Your task to perform on an android device: open app "Yahoo Mail" Image 0: 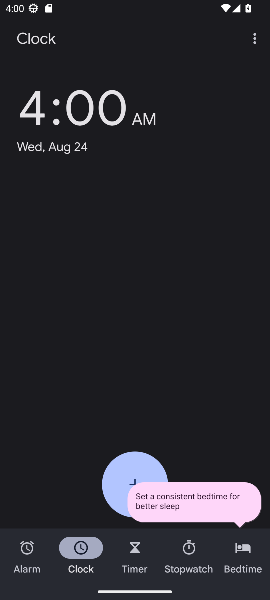
Step 0: press home button
Your task to perform on an android device: open app "Yahoo Mail" Image 1: 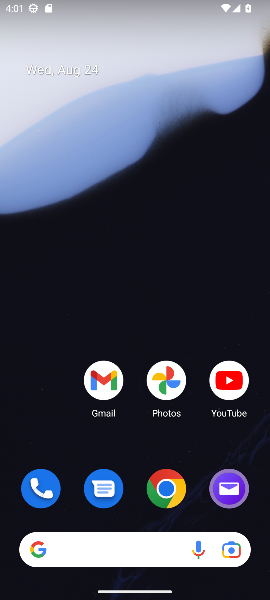
Step 1: drag from (131, 522) to (171, 106)
Your task to perform on an android device: open app "Yahoo Mail" Image 2: 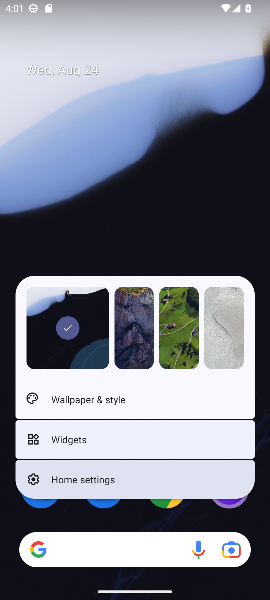
Step 2: click (171, 106)
Your task to perform on an android device: open app "Yahoo Mail" Image 3: 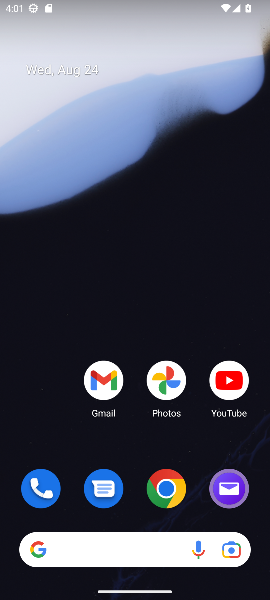
Step 3: drag from (133, 522) to (150, 53)
Your task to perform on an android device: open app "Yahoo Mail" Image 4: 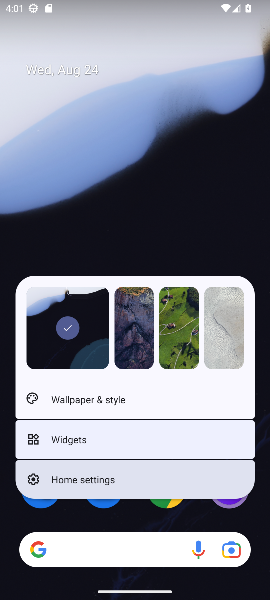
Step 4: click (132, 119)
Your task to perform on an android device: open app "Yahoo Mail" Image 5: 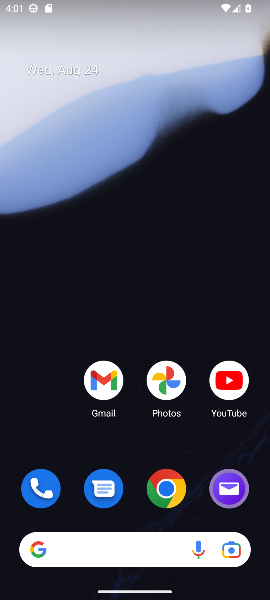
Step 5: drag from (135, 520) to (140, 182)
Your task to perform on an android device: open app "Yahoo Mail" Image 6: 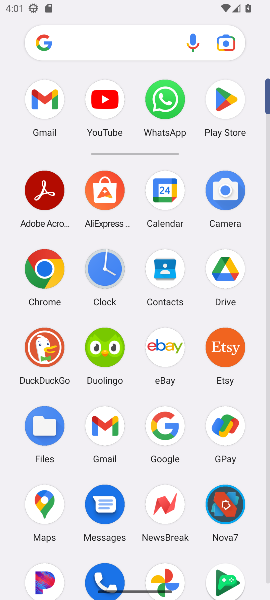
Step 6: click (215, 125)
Your task to perform on an android device: open app "Yahoo Mail" Image 7: 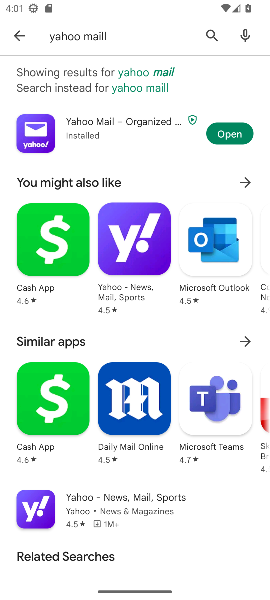
Step 7: click (214, 32)
Your task to perform on an android device: open app "Yahoo Mail" Image 8: 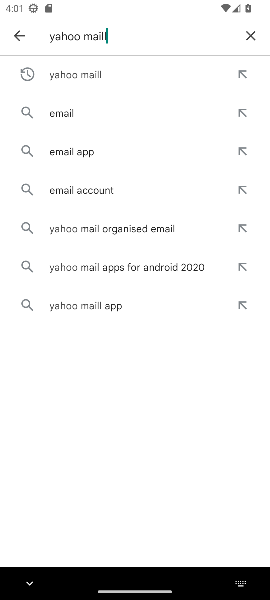
Step 8: click (254, 32)
Your task to perform on an android device: open app "Yahoo Mail" Image 9: 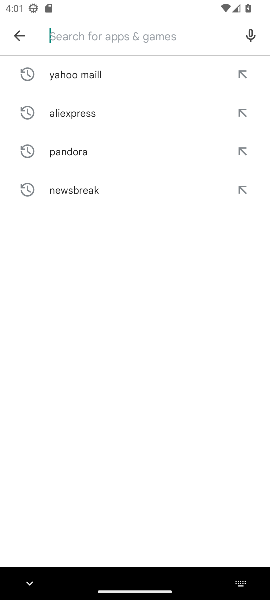
Step 9: type "yahoo mail"
Your task to perform on an android device: open app "Yahoo Mail" Image 10: 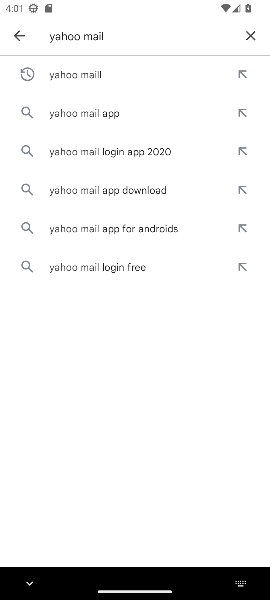
Step 10: click (113, 83)
Your task to perform on an android device: open app "Yahoo Mail" Image 11: 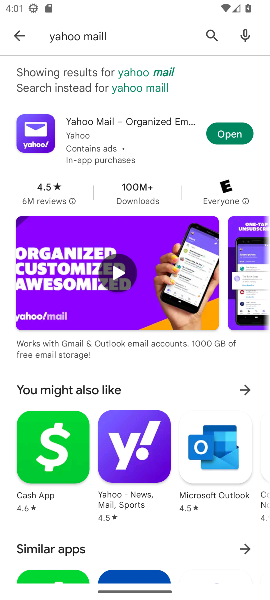
Step 11: click (224, 127)
Your task to perform on an android device: open app "Yahoo Mail" Image 12: 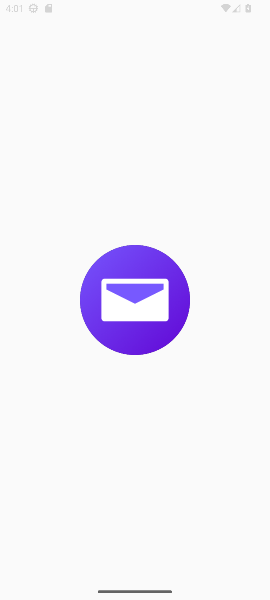
Step 12: task complete